Your task to perform on an android device: change alarm snooze length Image 0: 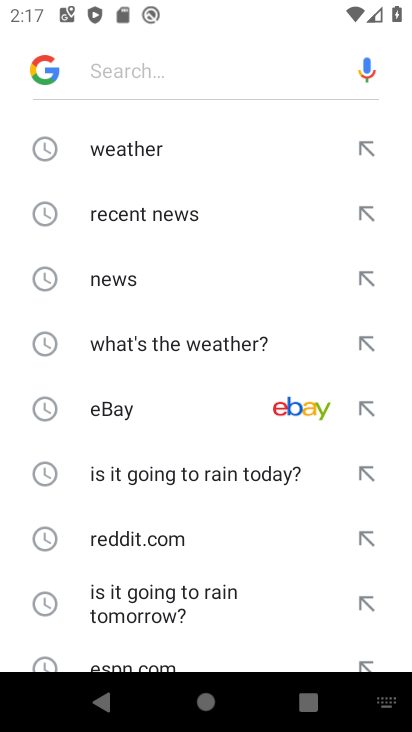
Step 0: press home button
Your task to perform on an android device: change alarm snooze length Image 1: 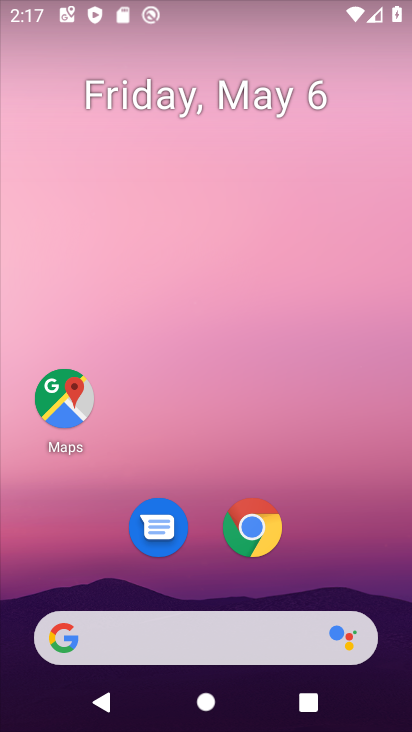
Step 1: drag from (340, 535) to (338, 87)
Your task to perform on an android device: change alarm snooze length Image 2: 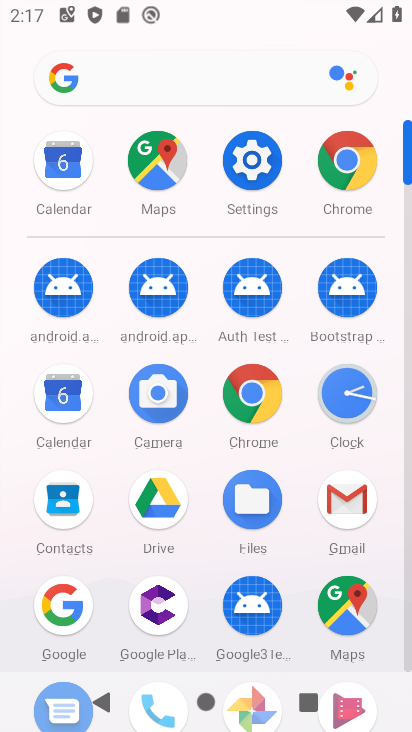
Step 2: click (336, 395)
Your task to perform on an android device: change alarm snooze length Image 3: 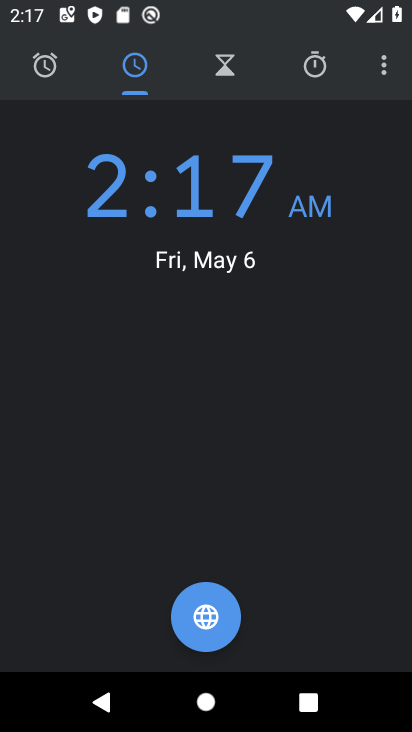
Step 3: click (382, 69)
Your task to perform on an android device: change alarm snooze length Image 4: 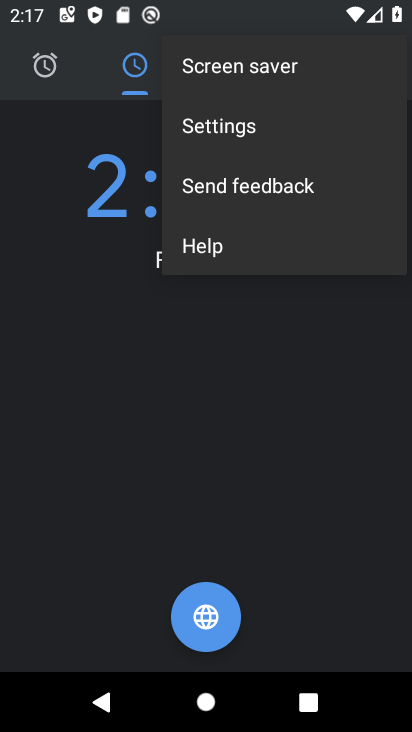
Step 4: click (54, 71)
Your task to perform on an android device: change alarm snooze length Image 5: 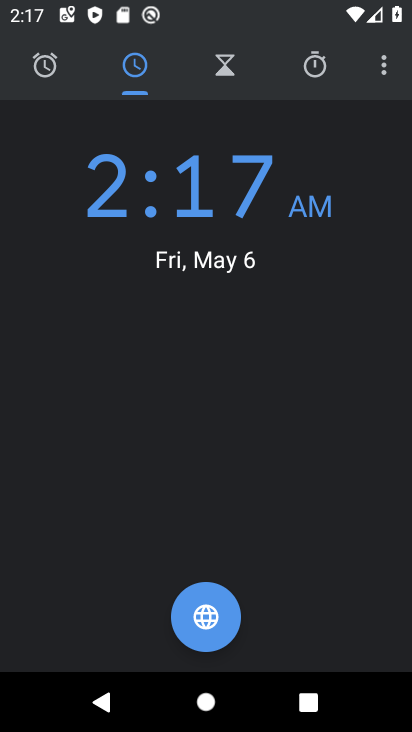
Step 5: click (379, 65)
Your task to perform on an android device: change alarm snooze length Image 6: 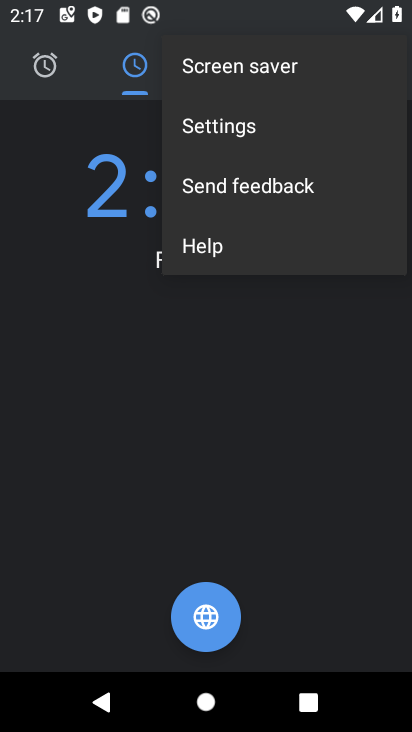
Step 6: click (218, 140)
Your task to perform on an android device: change alarm snooze length Image 7: 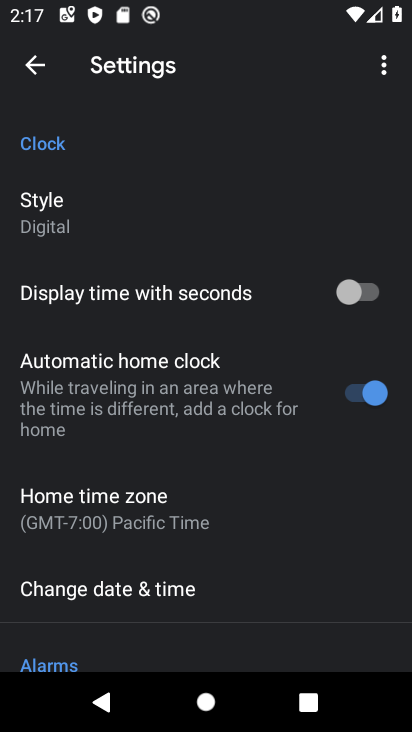
Step 7: drag from (256, 488) to (248, 294)
Your task to perform on an android device: change alarm snooze length Image 8: 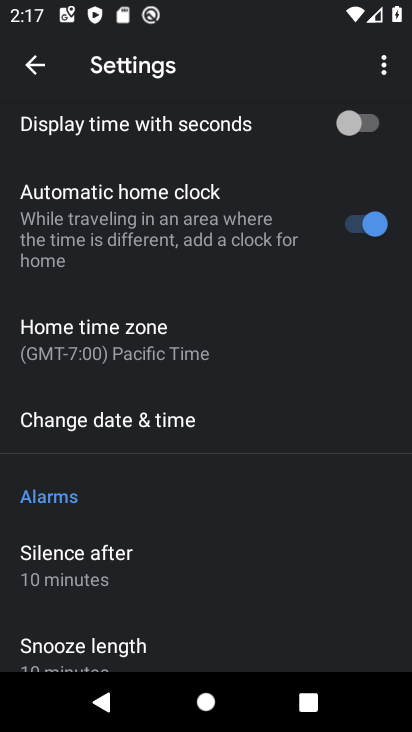
Step 8: drag from (298, 546) to (292, 410)
Your task to perform on an android device: change alarm snooze length Image 9: 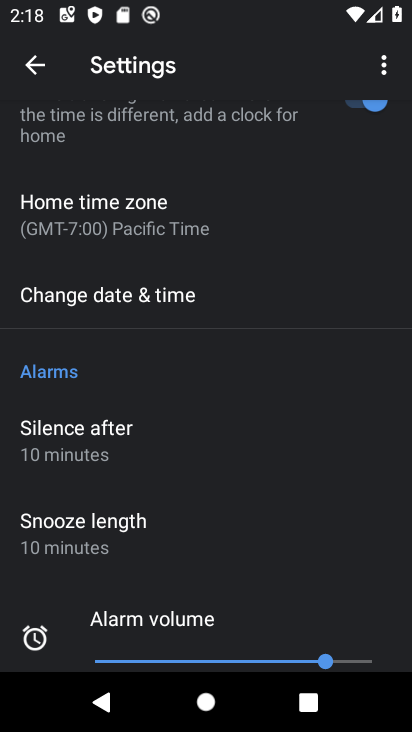
Step 9: click (75, 542)
Your task to perform on an android device: change alarm snooze length Image 10: 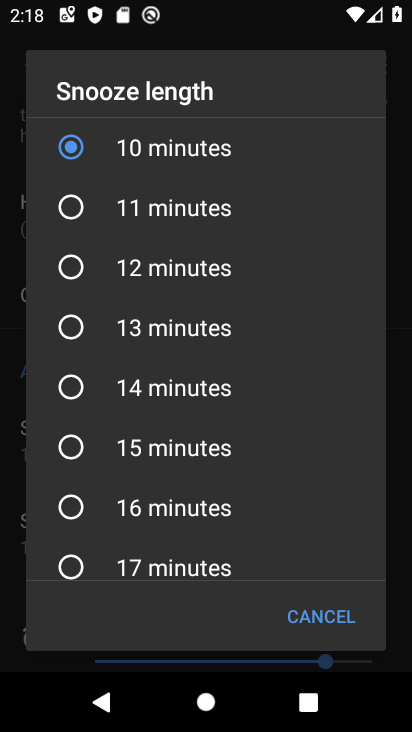
Step 10: click (168, 218)
Your task to perform on an android device: change alarm snooze length Image 11: 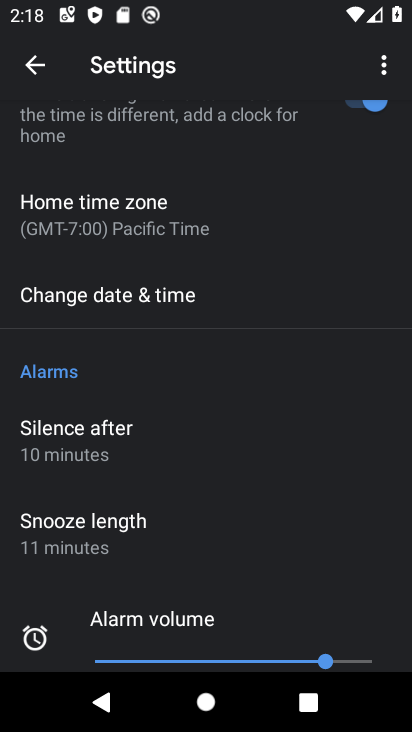
Step 11: task complete